Your task to perform on an android device: What's on my calendar tomorrow? Image 0: 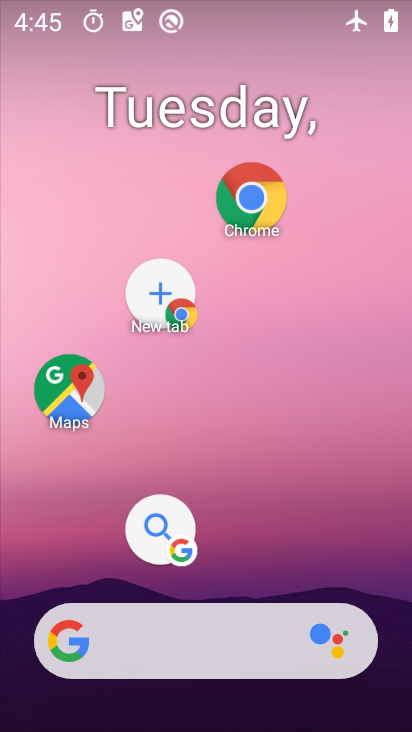
Step 0: drag from (212, 584) to (257, 336)
Your task to perform on an android device: What's on my calendar tomorrow? Image 1: 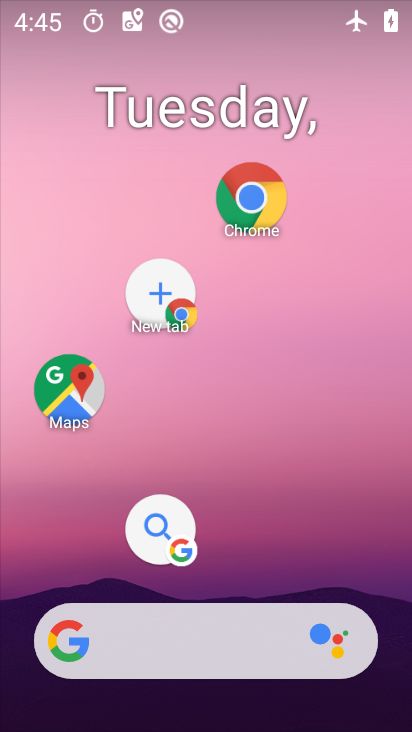
Step 1: drag from (167, 608) to (242, 330)
Your task to perform on an android device: What's on my calendar tomorrow? Image 2: 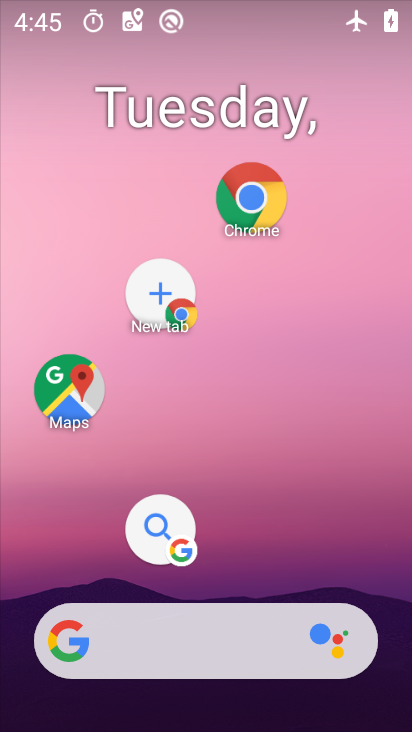
Step 2: drag from (178, 508) to (283, 256)
Your task to perform on an android device: What's on my calendar tomorrow? Image 3: 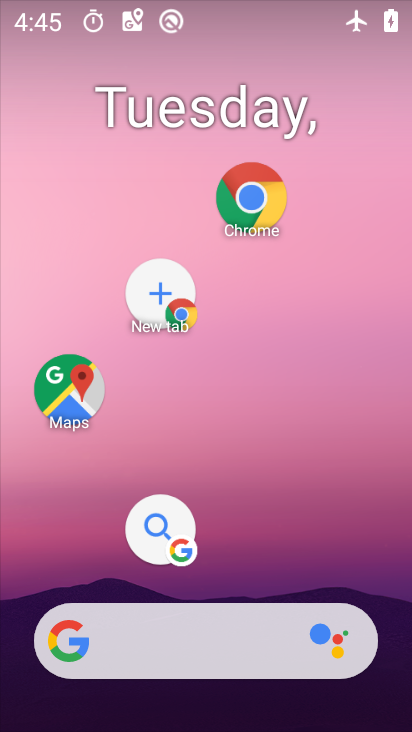
Step 3: drag from (269, 592) to (376, 290)
Your task to perform on an android device: What's on my calendar tomorrow? Image 4: 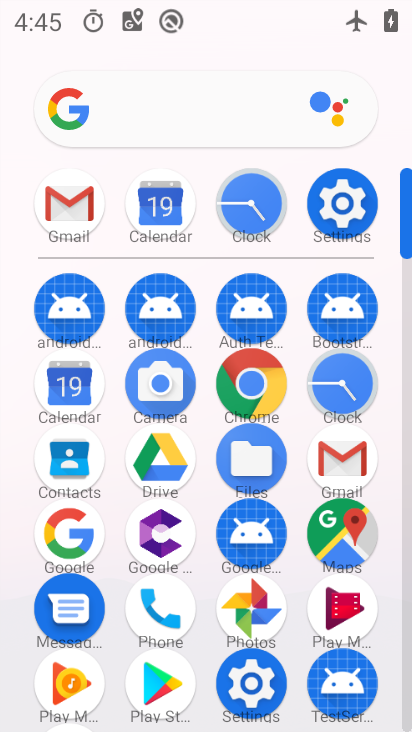
Step 4: click (60, 396)
Your task to perform on an android device: What's on my calendar tomorrow? Image 5: 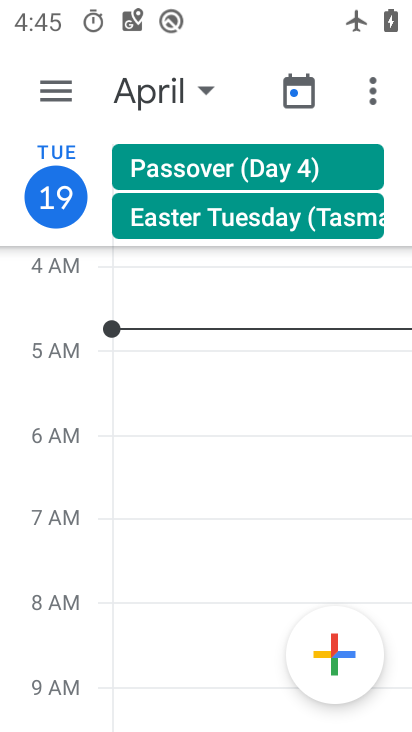
Step 5: click (167, 92)
Your task to perform on an android device: What's on my calendar tomorrow? Image 6: 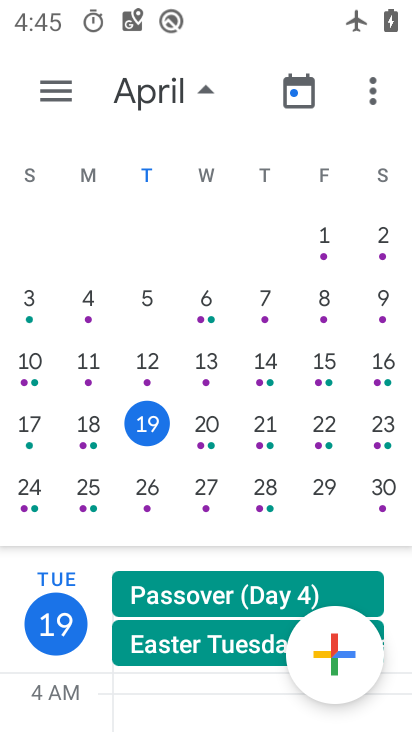
Step 6: click (208, 431)
Your task to perform on an android device: What's on my calendar tomorrow? Image 7: 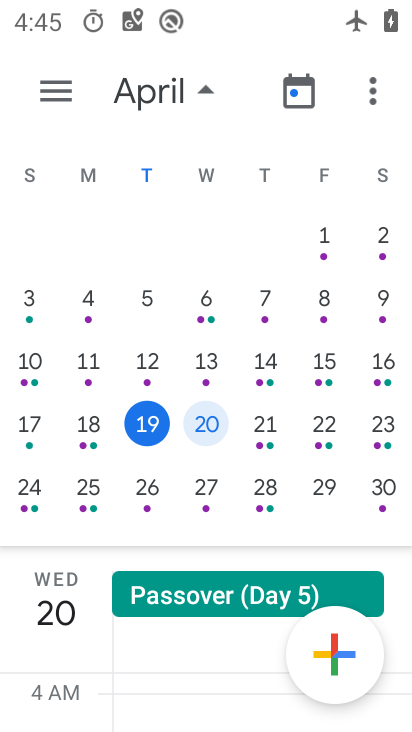
Step 7: task complete